Your task to perform on an android device: delete location history Image 0: 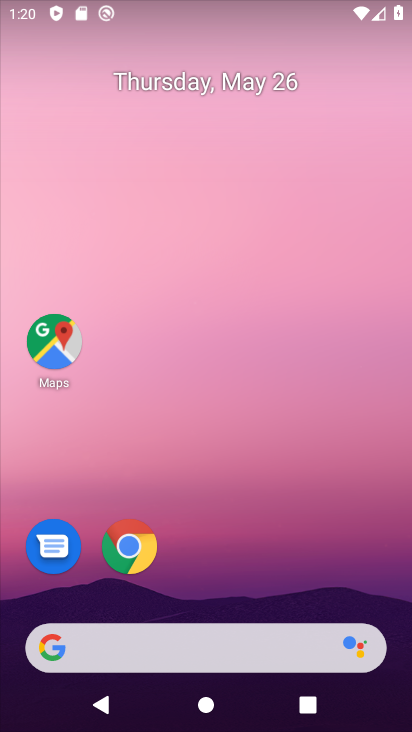
Step 0: drag from (212, 547) to (206, 123)
Your task to perform on an android device: delete location history Image 1: 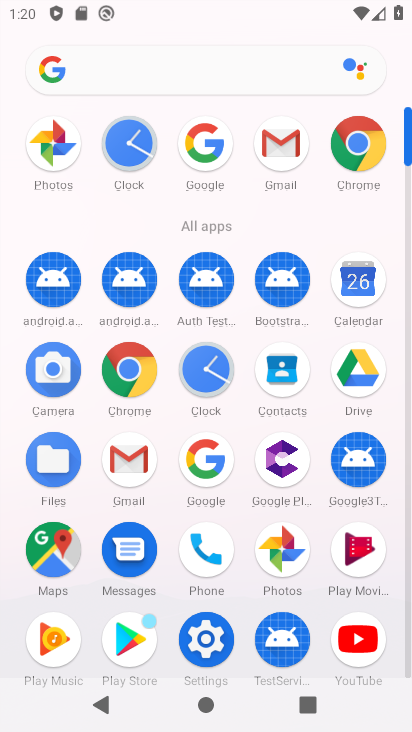
Step 1: click (209, 633)
Your task to perform on an android device: delete location history Image 2: 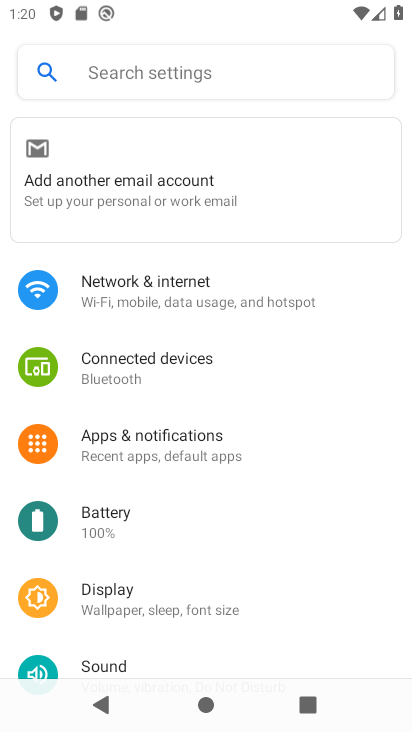
Step 2: drag from (231, 608) to (234, 203)
Your task to perform on an android device: delete location history Image 3: 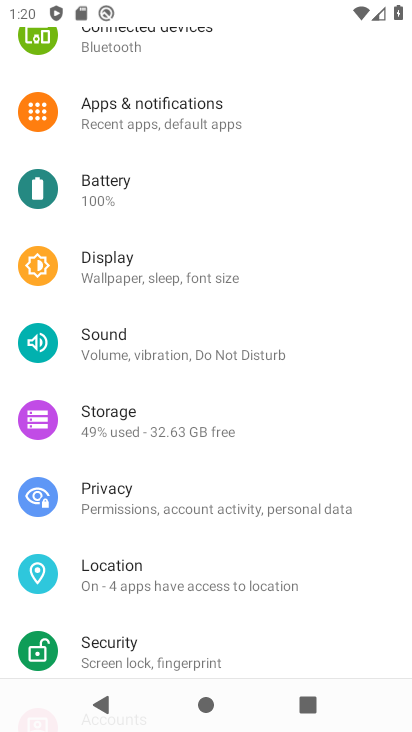
Step 3: click (155, 575)
Your task to perform on an android device: delete location history Image 4: 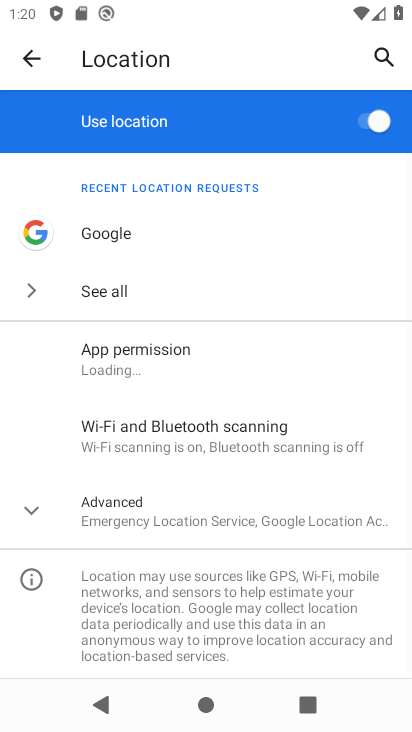
Step 4: click (152, 520)
Your task to perform on an android device: delete location history Image 5: 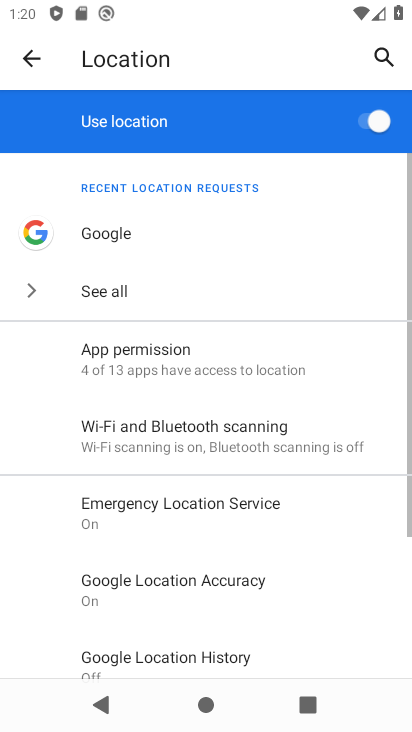
Step 5: click (229, 667)
Your task to perform on an android device: delete location history Image 6: 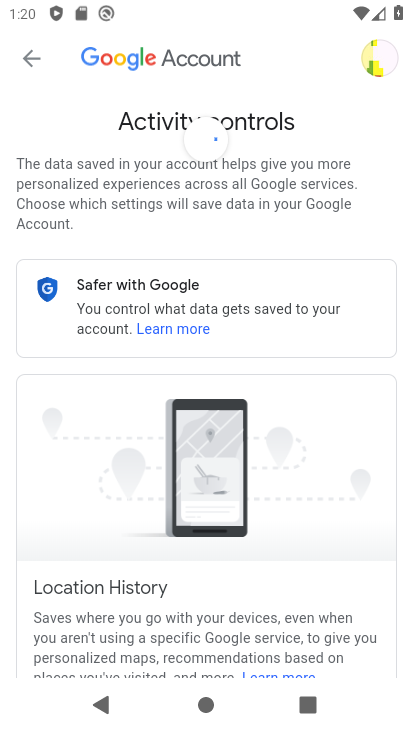
Step 6: drag from (223, 572) to (266, 67)
Your task to perform on an android device: delete location history Image 7: 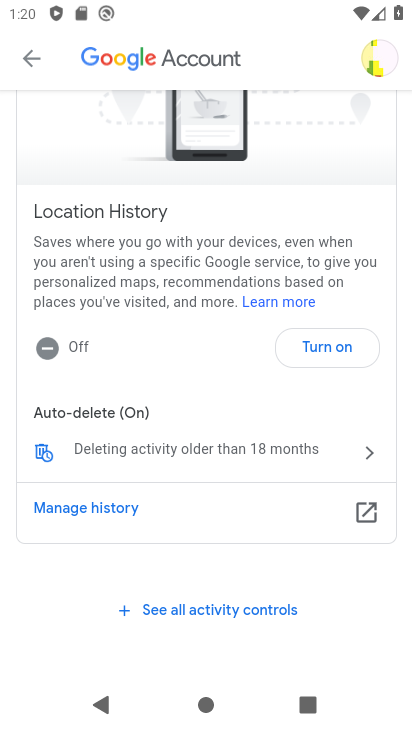
Step 7: click (44, 449)
Your task to perform on an android device: delete location history Image 8: 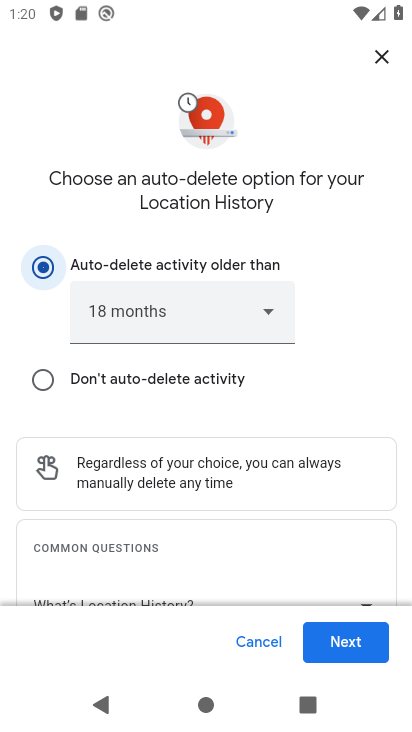
Step 8: click (336, 659)
Your task to perform on an android device: delete location history Image 9: 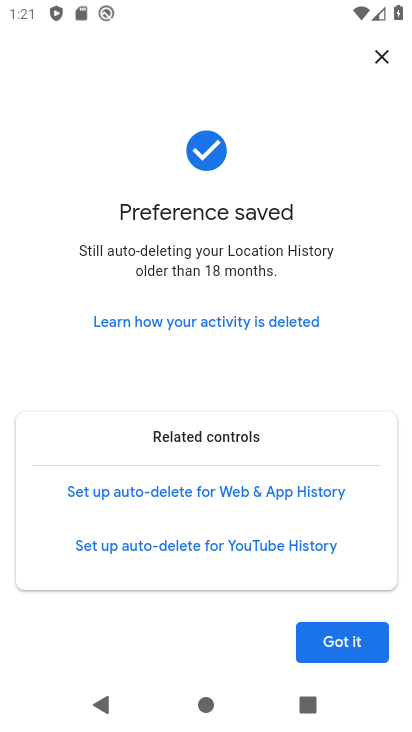
Step 9: click (346, 641)
Your task to perform on an android device: delete location history Image 10: 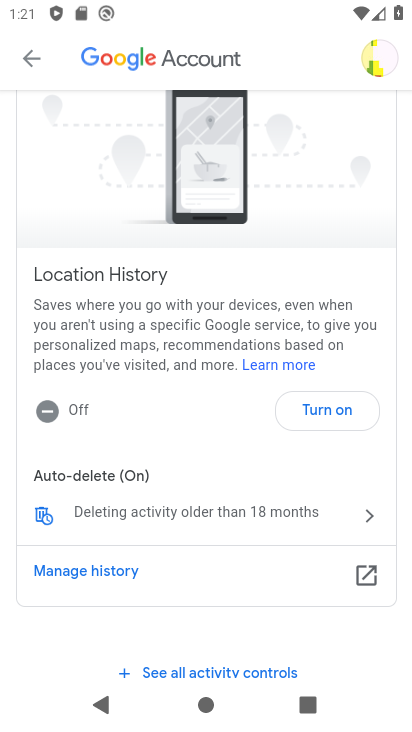
Step 10: task complete